Your task to perform on an android device: turn off picture-in-picture Image 0: 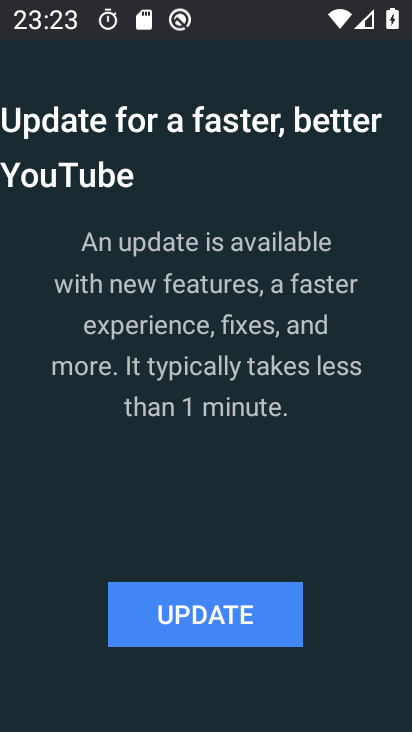
Step 0: press back button
Your task to perform on an android device: turn off picture-in-picture Image 1: 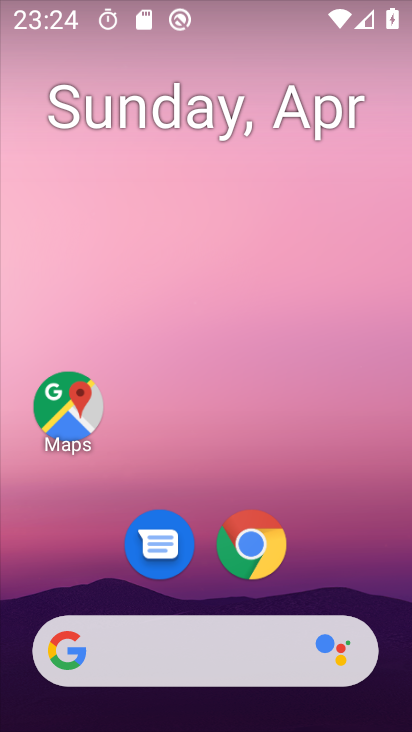
Step 1: drag from (360, 423) to (340, 216)
Your task to perform on an android device: turn off picture-in-picture Image 2: 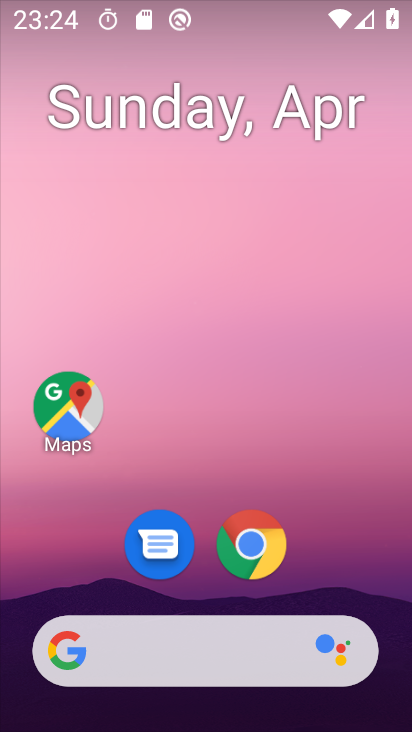
Step 2: drag from (326, 572) to (385, 191)
Your task to perform on an android device: turn off picture-in-picture Image 3: 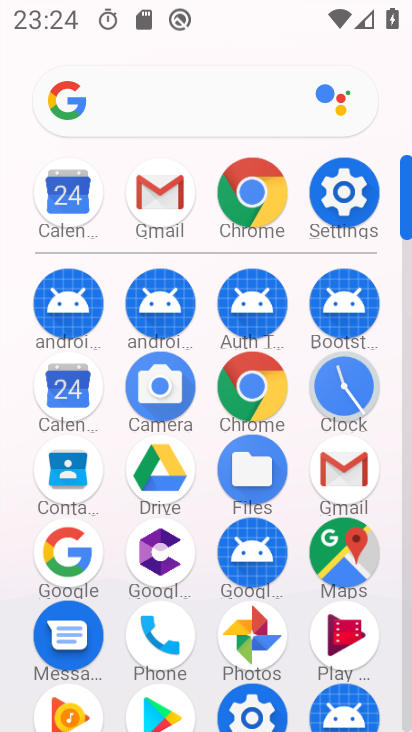
Step 3: click (337, 196)
Your task to perform on an android device: turn off picture-in-picture Image 4: 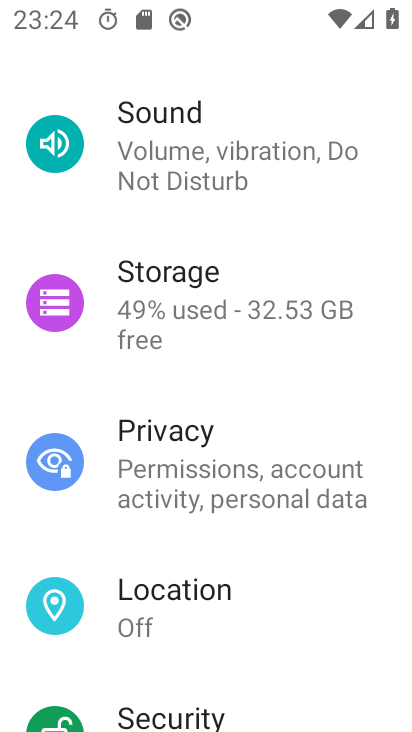
Step 4: click (246, 597)
Your task to perform on an android device: turn off picture-in-picture Image 5: 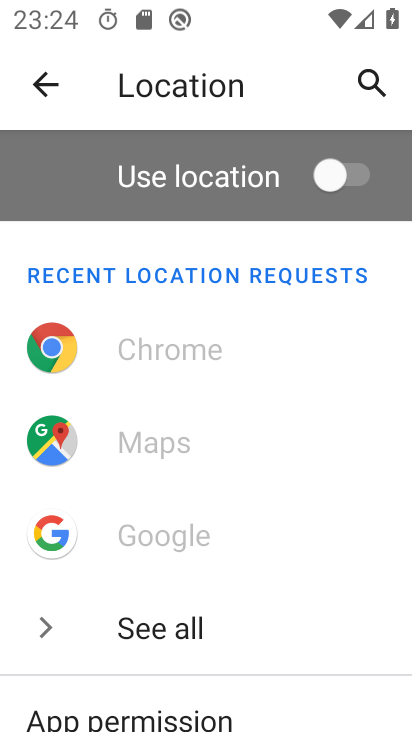
Step 5: drag from (293, 630) to (266, 227)
Your task to perform on an android device: turn off picture-in-picture Image 6: 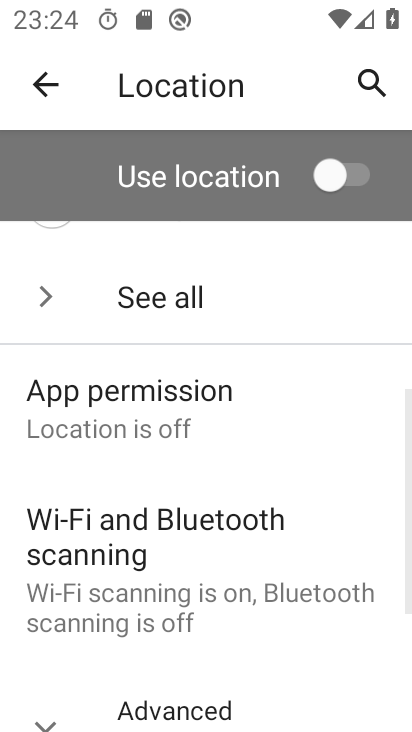
Step 6: drag from (190, 684) to (233, 221)
Your task to perform on an android device: turn off picture-in-picture Image 7: 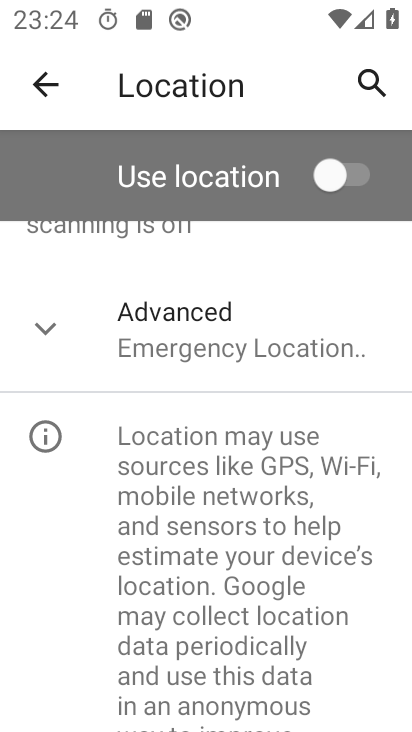
Step 7: click (231, 334)
Your task to perform on an android device: turn off picture-in-picture Image 8: 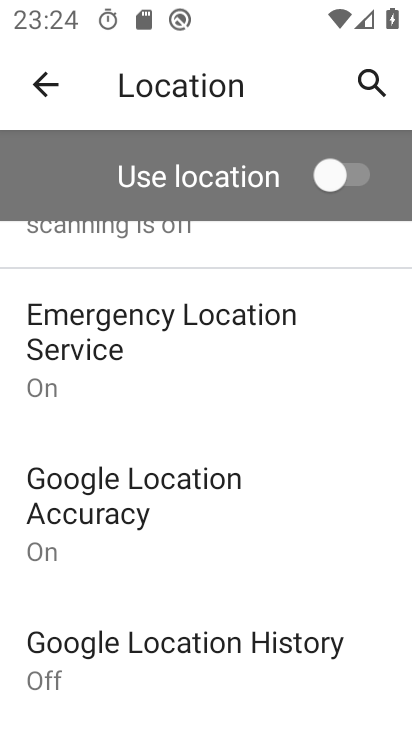
Step 8: drag from (208, 616) to (209, 264)
Your task to perform on an android device: turn off picture-in-picture Image 9: 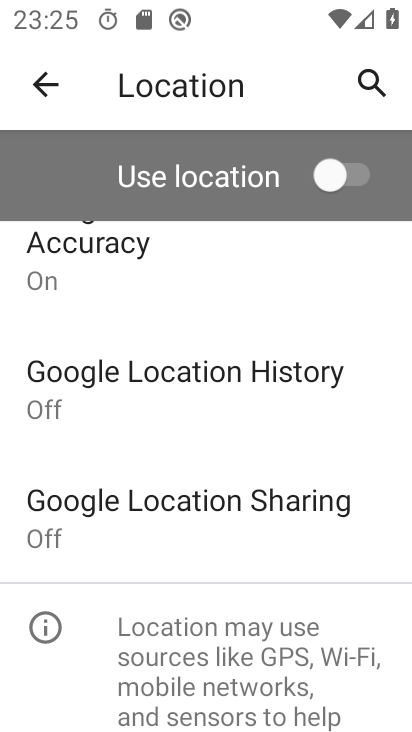
Step 9: click (54, 92)
Your task to perform on an android device: turn off picture-in-picture Image 10: 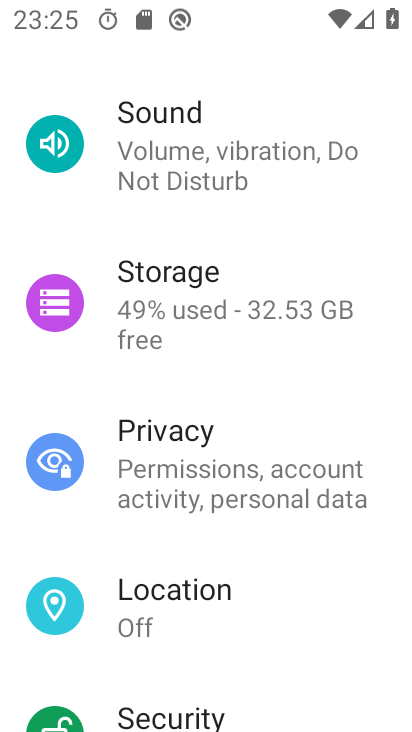
Step 10: drag from (244, 225) to (232, 712)
Your task to perform on an android device: turn off picture-in-picture Image 11: 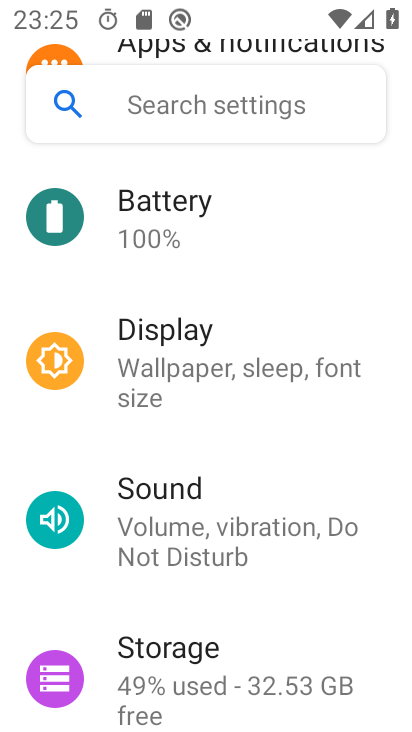
Step 11: drag from (225, 245) to (254, 717)
Your task to perform on an android device: turn off picture-in-picture Image 12: 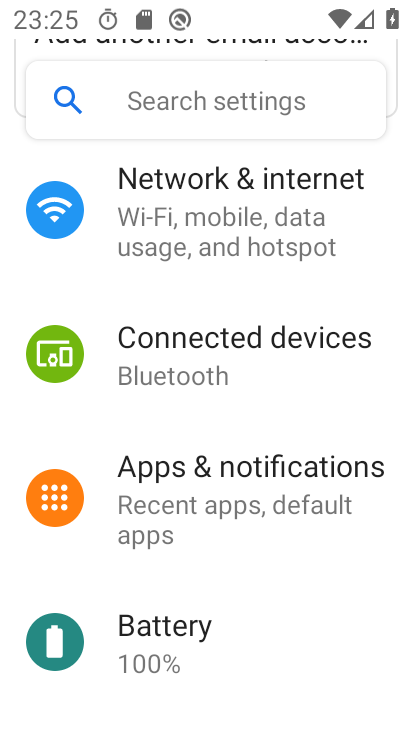
Step 12: click (229, 471)
Your task to perform on an android device: turn off picture-in-picture Image 13: 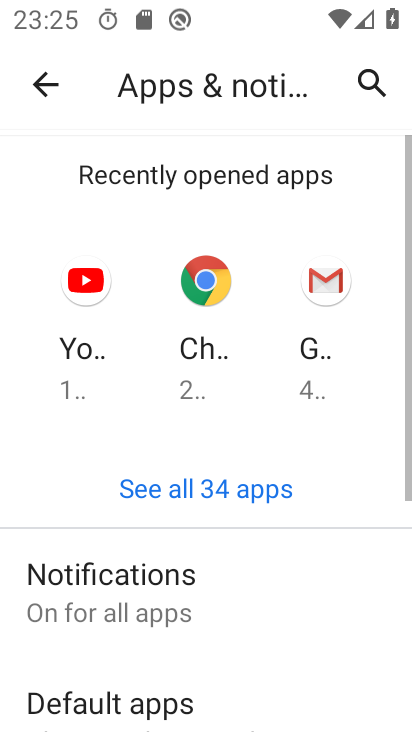
Step 13: drag from (274, 643) to (284, 359)
Your task to perform on an android device: turn off picture-in-picture Image 14: 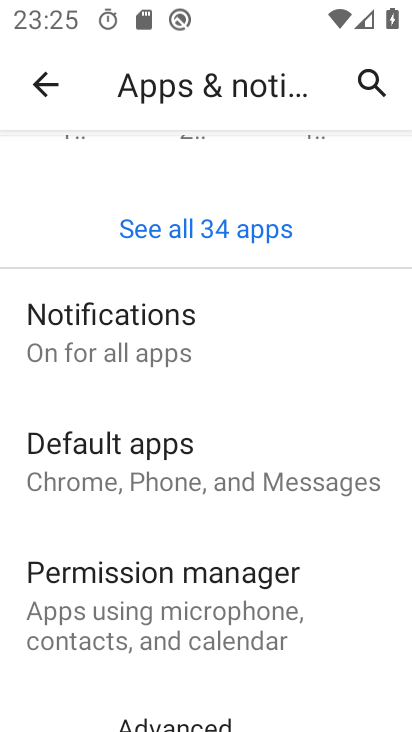
Step 14: drag from (281, 650) to (279, 354)
Your task to perform on an android device: turn off picture-in-picture Image 15: 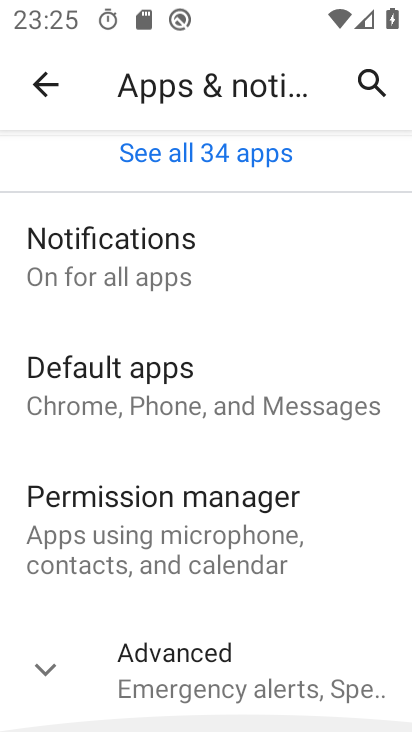
Step 15: click (235, 693)
Your task to perform on an android device: turn off picture-in-picture Image 16: 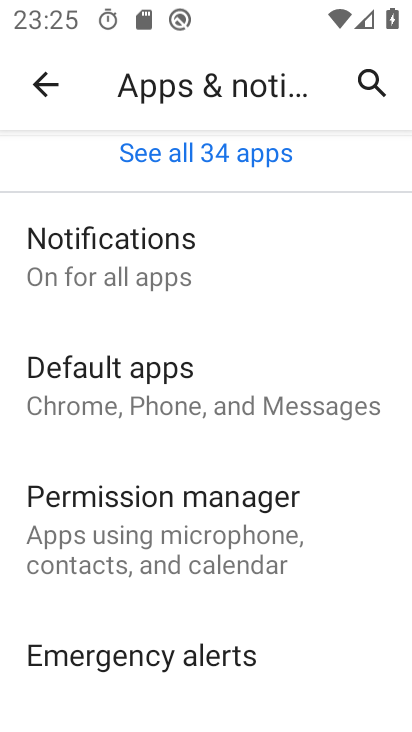
Step 16: drag from (269, 613) to (319, 192)
Your task to perform on an android device: turn off picture-in-picture Image 17: 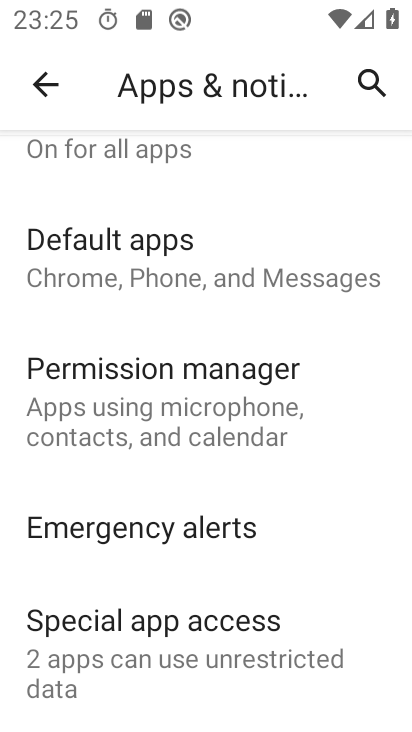
Step 17: click (215, 645)
Your task to perform on an android device: turn off picture-in-picture Image 18: 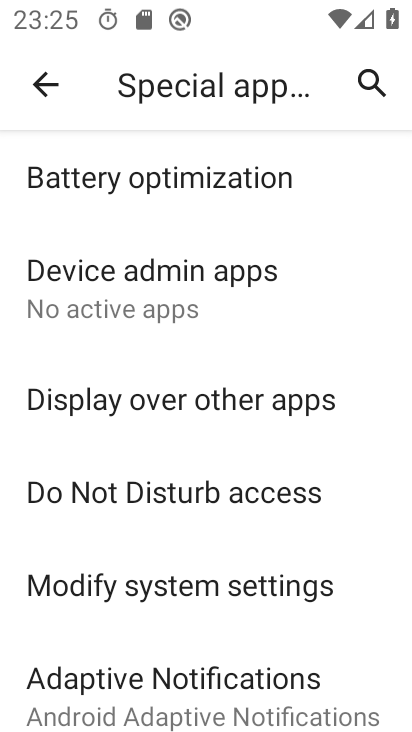
Step 18: drag from (294, 612) to (332, 192)
Your task to perform on an android device: turn off picture-in-picture Image 19: 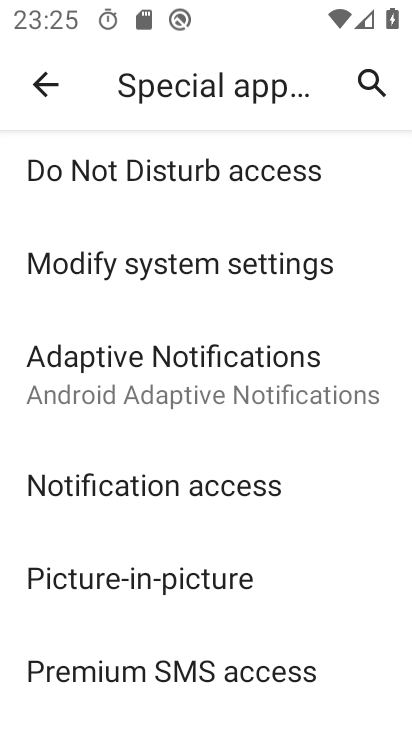
Step 19: click (194, 576)
Your task to perform on an android device: turn off picture-in-picture Image 20: 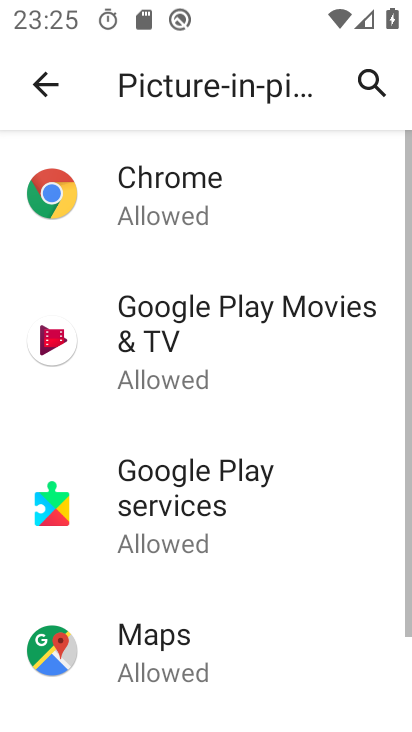
Step 20: drag from (266, 645) to (308, 210)
Your task to perform on an android device: turn off picture-in-picture Image 21: 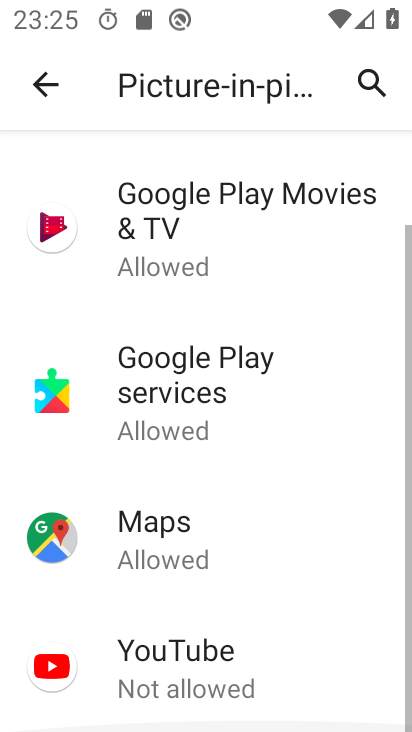
Step 21: click (210, 654)
Your task to perform on an android device: turn off picture-in-picture Image 22: 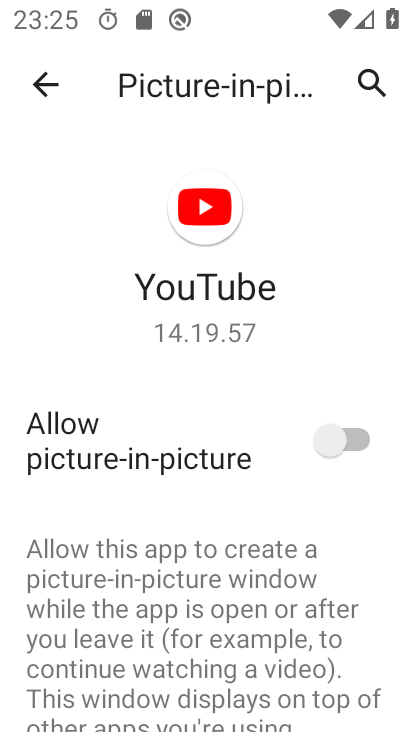
Step 22: task complete